Your task to perform on an android device: What is the news today? Image 0: 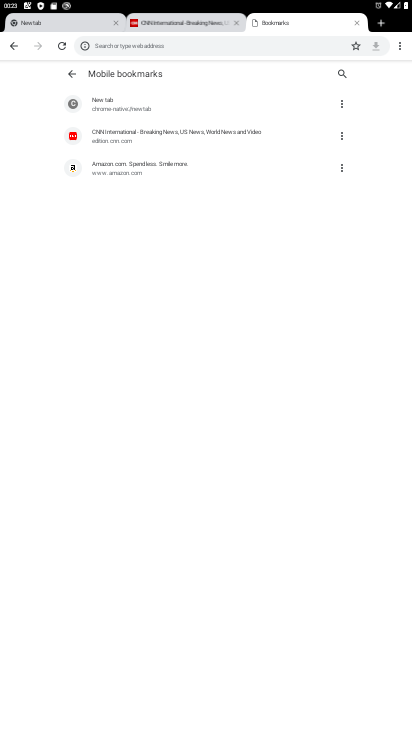
Step 0: task complete